Your task to perform on an android device: read, delete, or share a saved page in the chrome app Image 0: 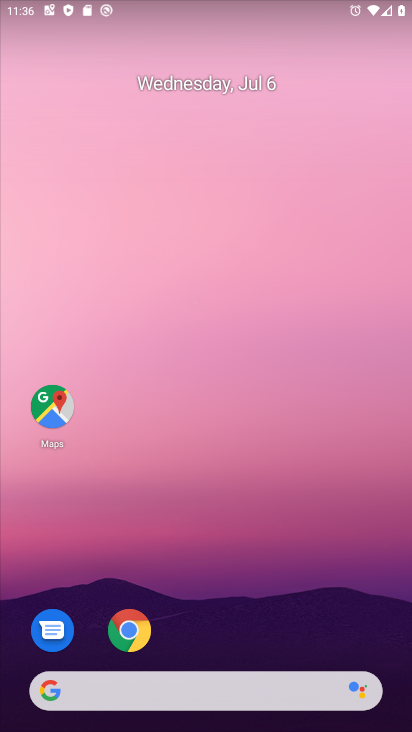
Step 0: drag from (317, 631) to (261, 120)
Your task to perform on an android device: read, delete, or share a saved page in the chrome app Image 1: 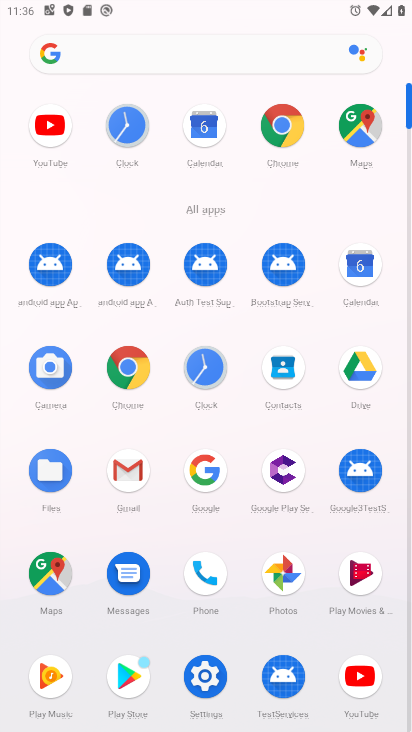
Step 1: click (290, 135)
Your task to perform on an android device: read, delete, or share a saved page in the chrome app Image 2: 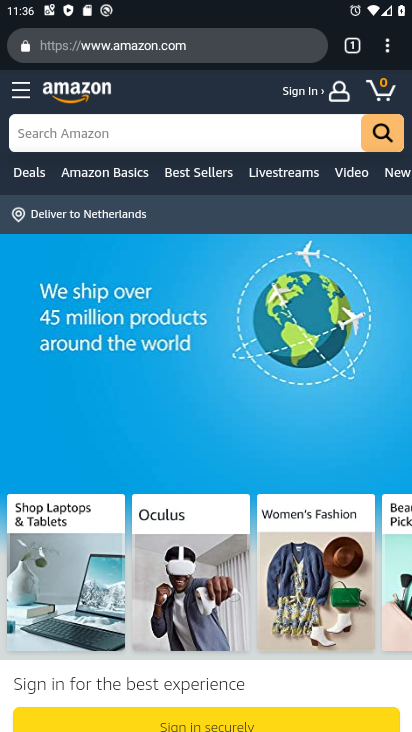
Step 2: click (383, 55)
Your task to perform on an android device: read, delete, or share a saved page in the chrome app Image 3: 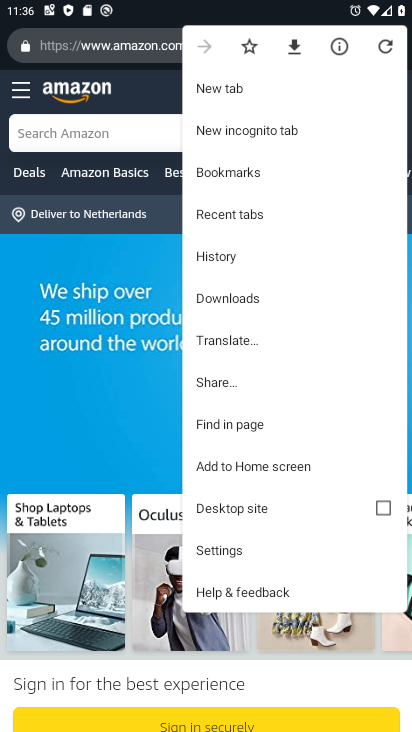
Step 3: click (285, 296)
Your task to perform on an android device: read, delete, or share a saved page in the chrome app Image 4: 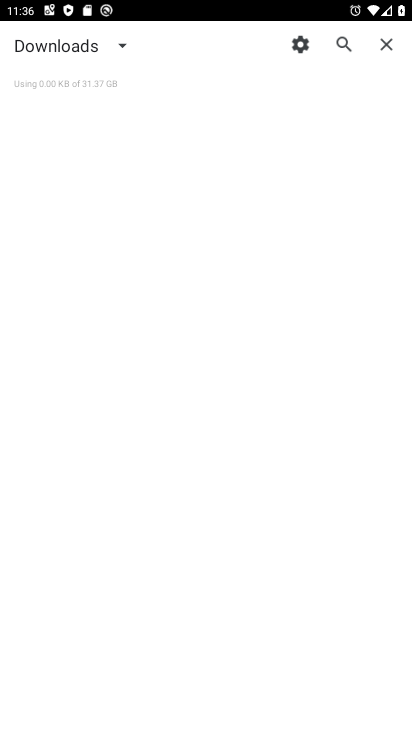
Step 4: click (107, 48)
Your task to perform on an android device: read, delete, or share a saved page in the chrome app Image 5: 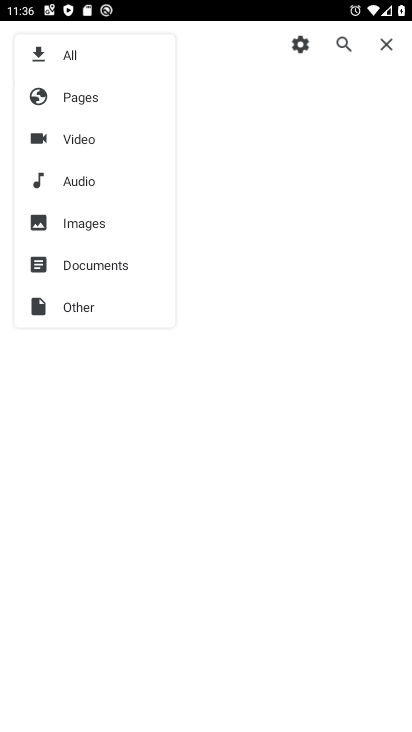
Step 5: click (108, 107)
Your task to perform on an android device: read, delete, or share a saved page in the chrome app Image 6: 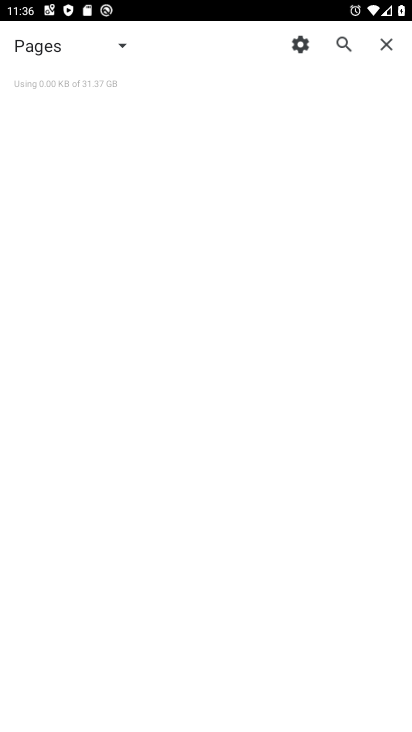
Step 6: task complete